Your task to perform on an android device: What's the weather going to be this weekend? Image 0: 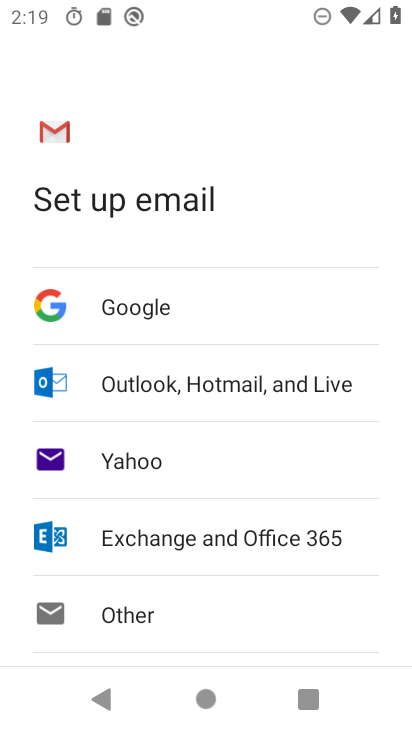
Step 0: press home button
Your task to perform on an android device: What's the weather going to be this weekend? Image 1: 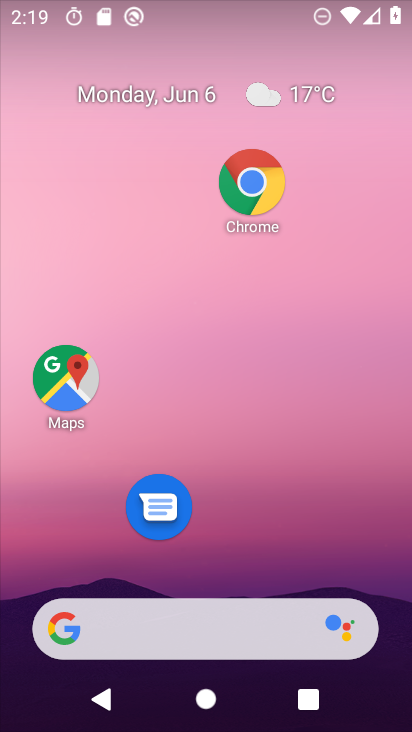
Step 1: drag from (159, 376) to (130, 246)
Your task to perform on an android device: What's the weather going to be this weekend? Image 2: 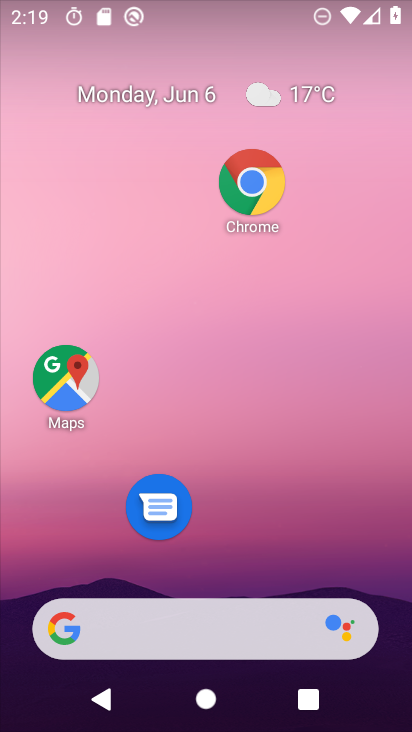
Step 2: drag from (187, 659) to (87, 207)
Your task to perform on an android device: What's the weather going to be this weekend? Image 3: 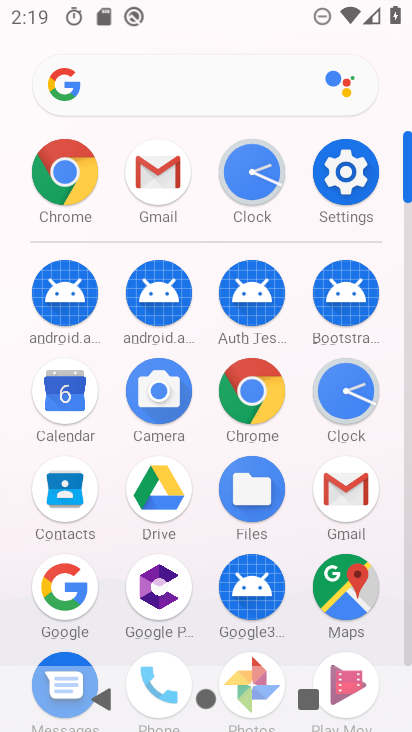
Step 3: click (138, 104)
Your task to perform on an android device: What's the weather going to be this weekend? Image 4: 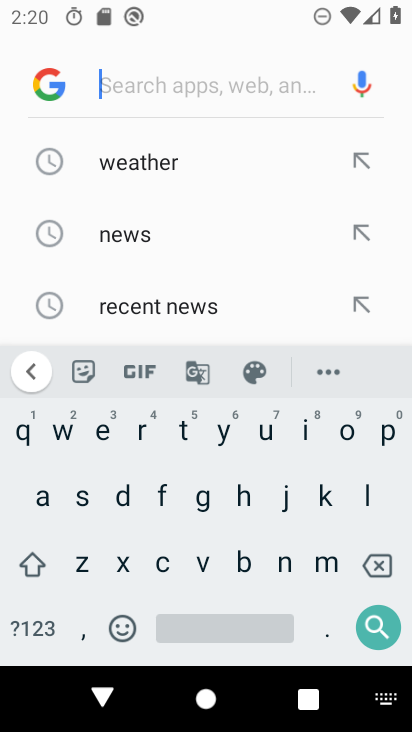
Step 4: click (131, 172)
Your task to perform on an android device: What's the weather going to be this weekend? Image 5: 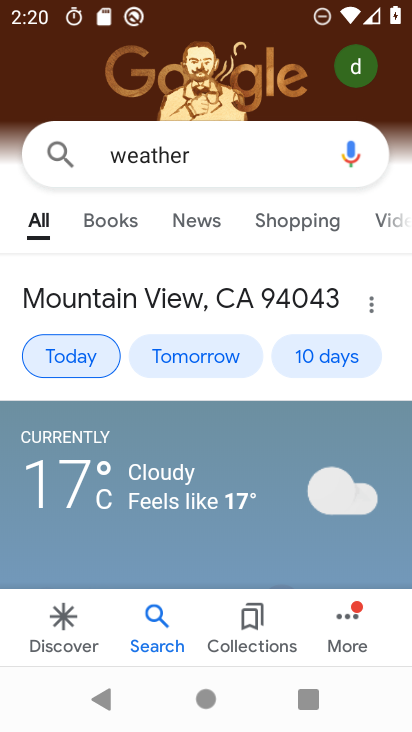
Step 5: click (312, 352)
Your task to perform on an android device: What's the weather going to be this weekend? Image 6: 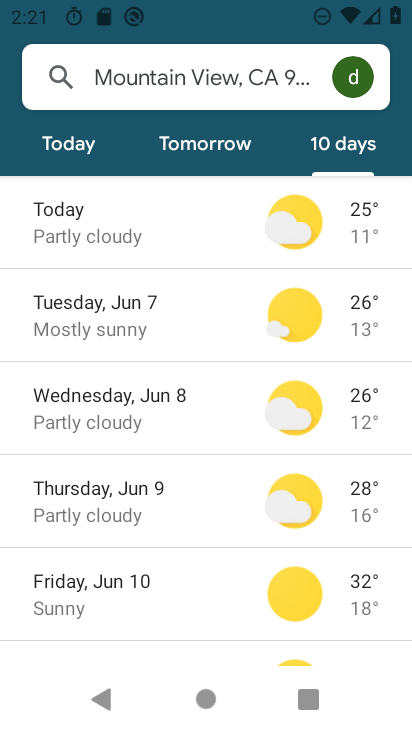
Step 6: task complete